Your task to perform on an android device: open chrome and create a bookmark for the current page Image 0: 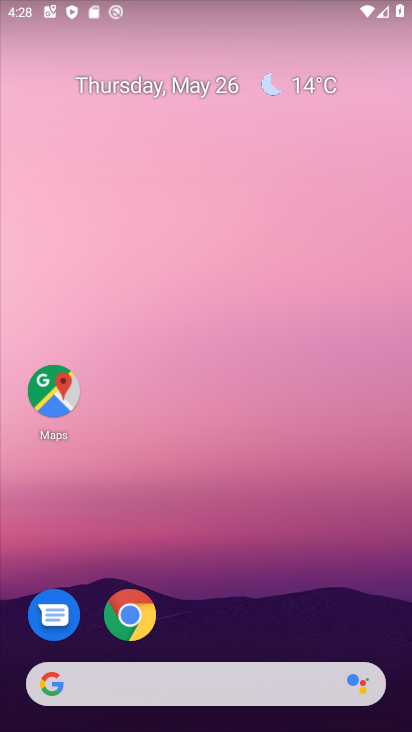
Step 0: drag from (267, 615) to (272, 64)
Your task to perform on an android device: open chrome and create a bookmark for the current page Image 1: 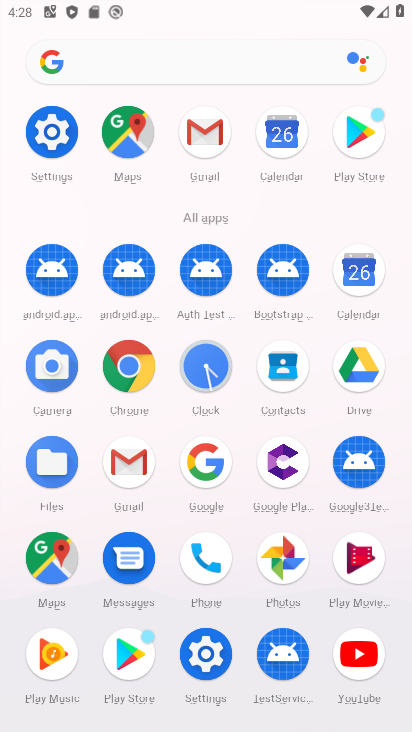
Step 1: click (126, 366)
Your task to perform on an android device: open chrome and create a bookmark for the current page Image 2: 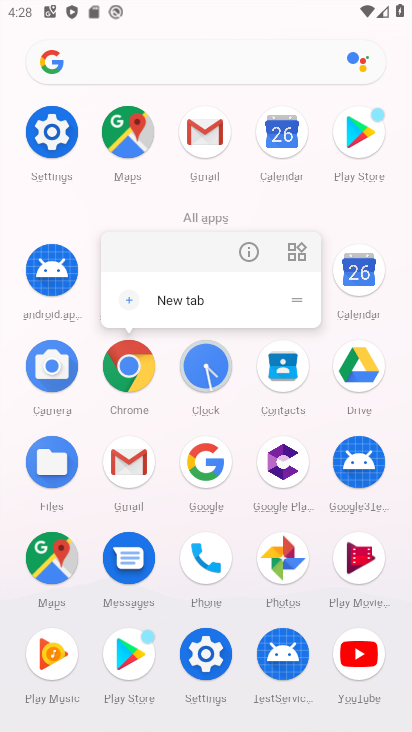
Step 2: click (125, 362)
Your task to perform on an android device: open chrome and create a bookmark for the current page Image 3: 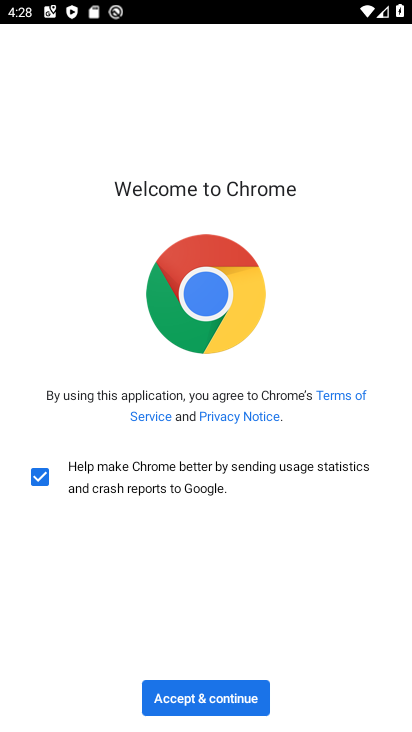
Step 3: click (235, 702)
Your task to perform on an android device: open chrome and create a bookmark for the current page Image 4: 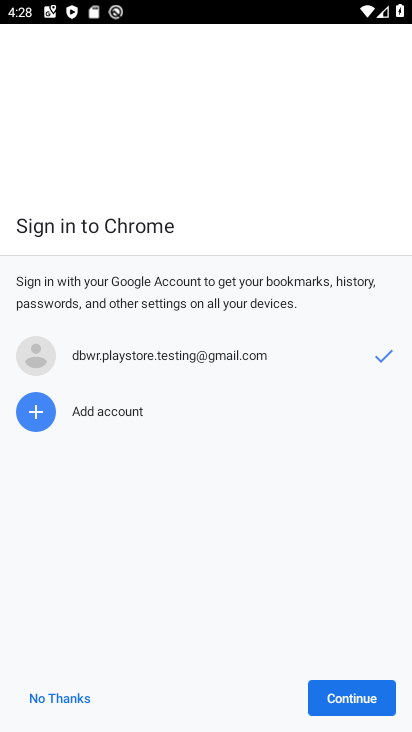
Step 4: click (363, 690)
Your task to perform on an android device: open chrome and create a bookmark for the current page Image 5: 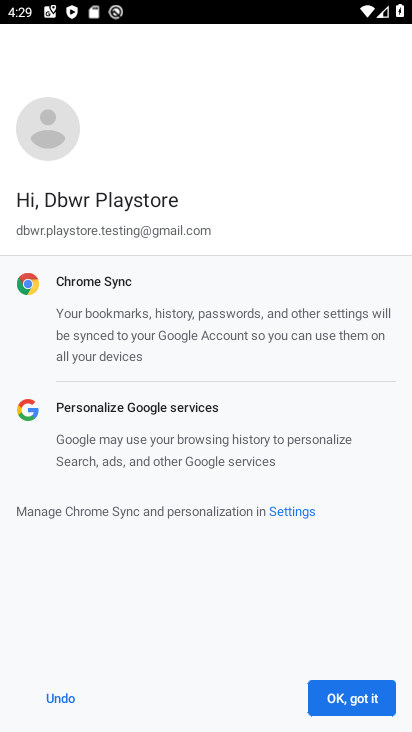
Step 5: click (358, 695)
Your task to perform on an android device: open chrome and create a bookmark for the current page Image 6: 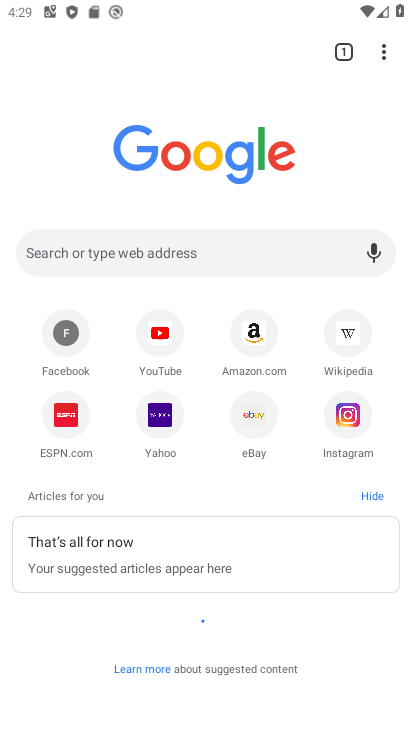
Step 6: task complete